Your task to perform on an android device: Open location settings Image 0: 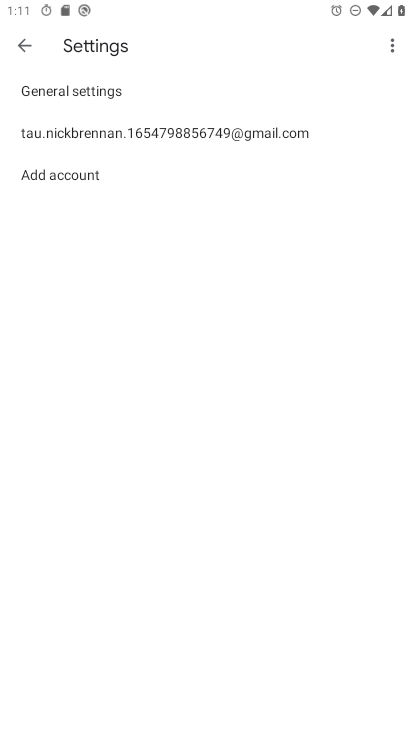
Step 0: press home button
Your task to perform on an android device: Open location settings Image 1: 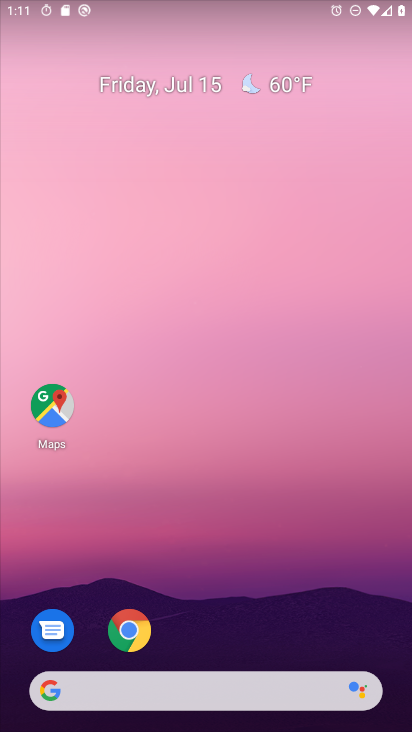
Step 1: drag from (178, 560) to (162, 194)
Your task to perform on an android device: Open location settings Image 2: 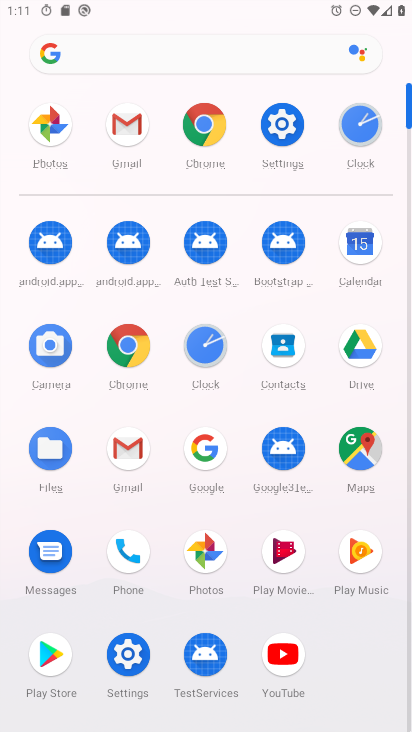
Step 2: click (124, 661)
Your task to perform on an android device: Open location settings Image 3: 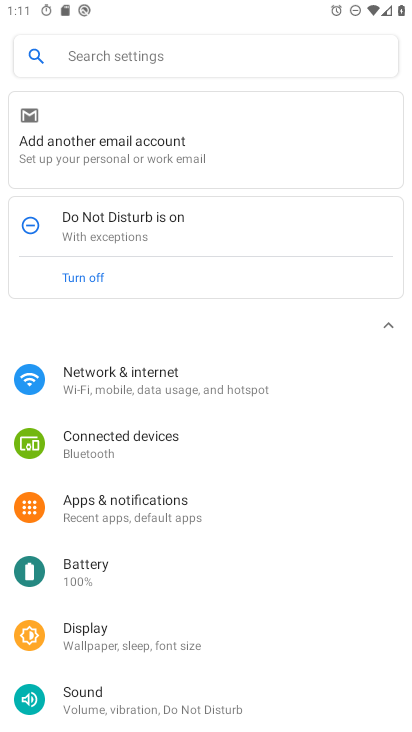
Step 3: drag from (126, 685) to (157, 424)
Your task to perform on an android device: Open location settings Image 4: 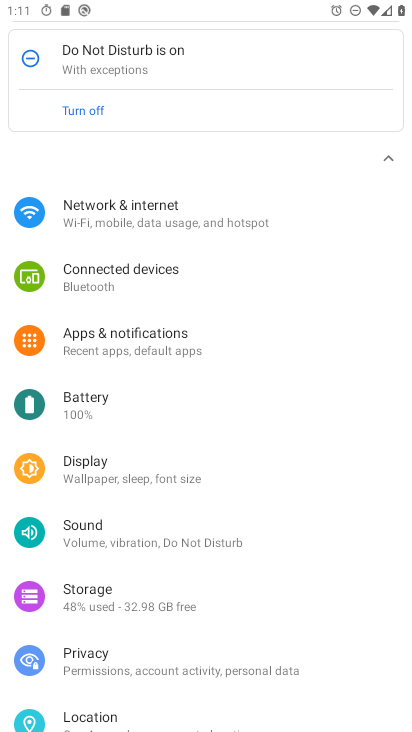
Step 4: click (80, 709)
Your task to perform on an android device: Open location settings Image 5: 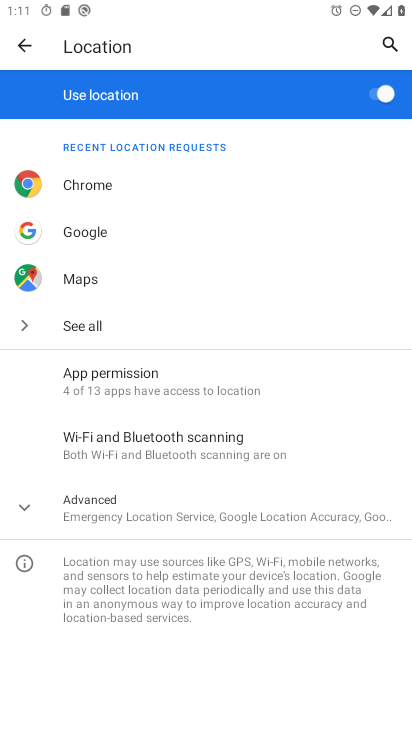
Step 5: task complete